Your task to perform on an android device: find which apps use the phone's location Image 0: 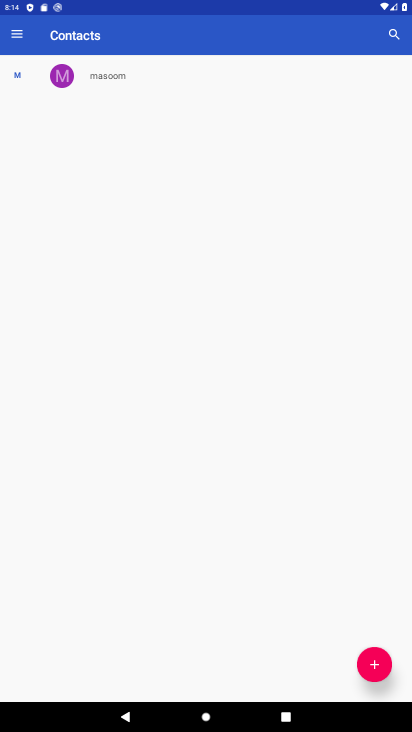
Step 0: press home button
Your task to perform on an android device: find which apps use the phone's location Image 1: 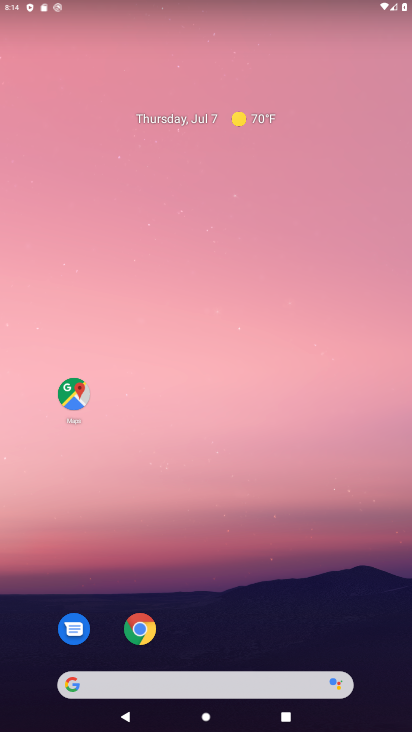
Step 1: drag from (167, 634) to (202, 123)
Your task to perform on an android device: find which apps use the phone's location Image 2: 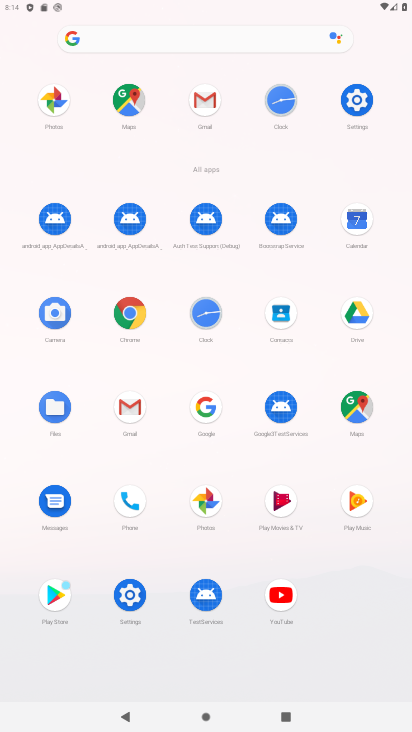
Step 2: click (143, 605)
Your task to perform on an android device: find which apps use the phone's location Image 3: 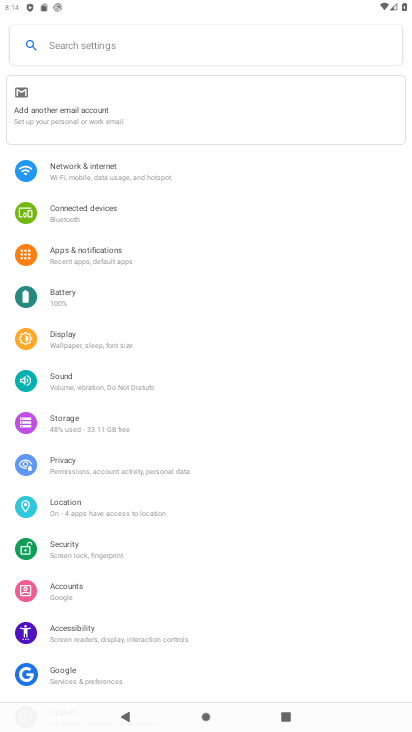
Step 3: click (125, 514)
Your task to perform on an android device: find which apps use the phone's location Image 4: 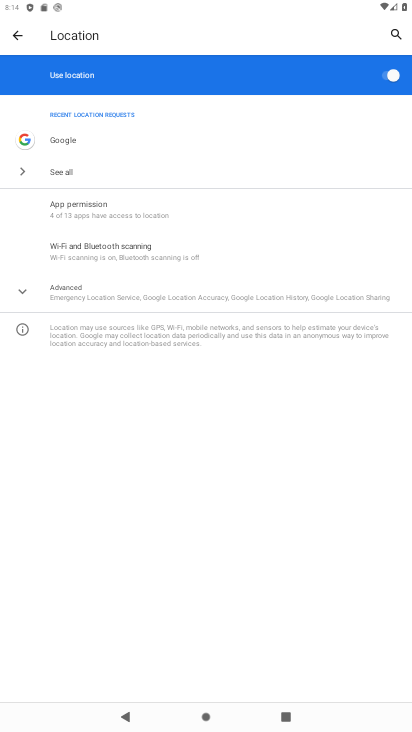
Step 4: click (150, 210)
Your task to perform on an android device: find which apps use the phone's location Image 5: 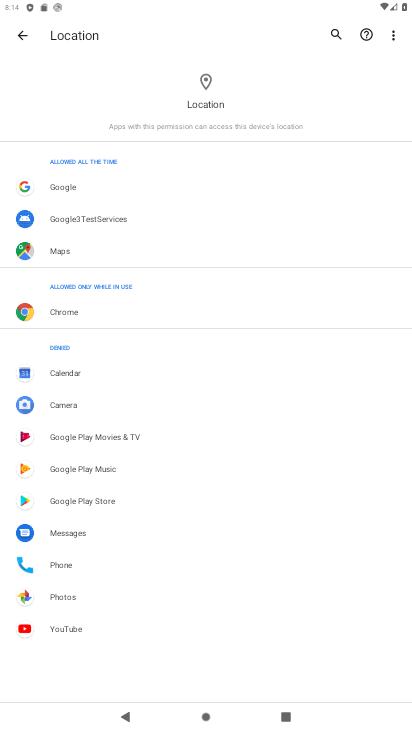
Step 5: task complete